Your task to perform on an android device: Open the phone app and click the voicemail tab. Image 0: 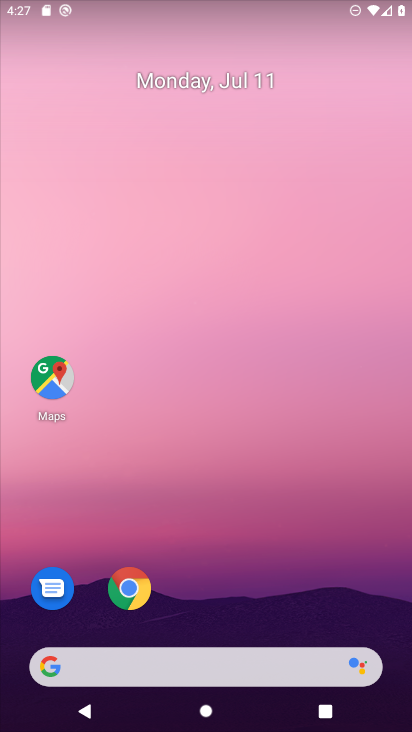
Step 0: press home button
Your task to perform on an android device: Open the phone app and click the voicemail tab. Image 1: 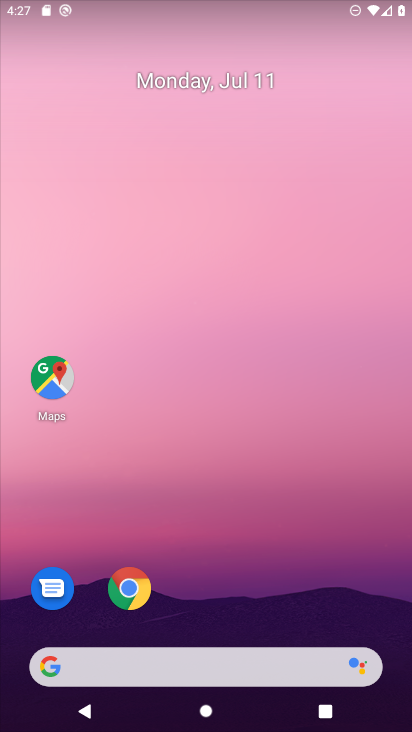
Step 1: drag from (203, 608) to (169, 202)
Your task to perform on an android device: Open the phone app and click the voicemail tab. Image 2: 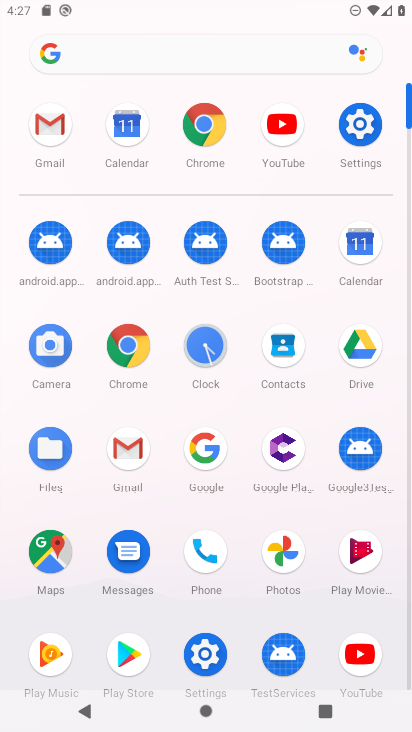
Step 2: click (207, 560)
Your task to perform on an android device: Open the phone app and click the voicemail tab. Image 3: 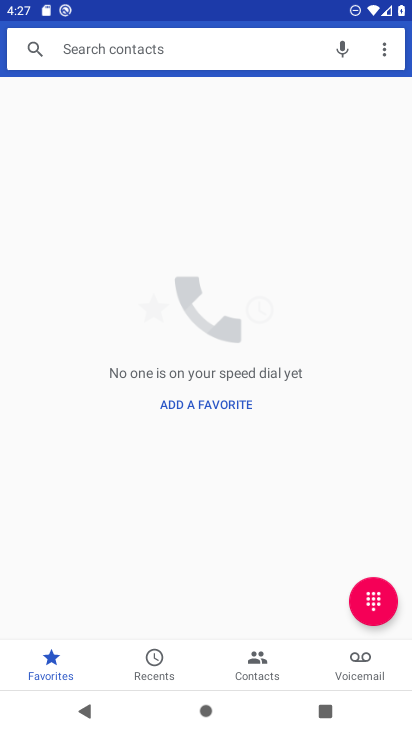
Step 3: click (364, 663)
Your task to perform on an android device: Open the phone app and click the voicemail tab. Image 4: 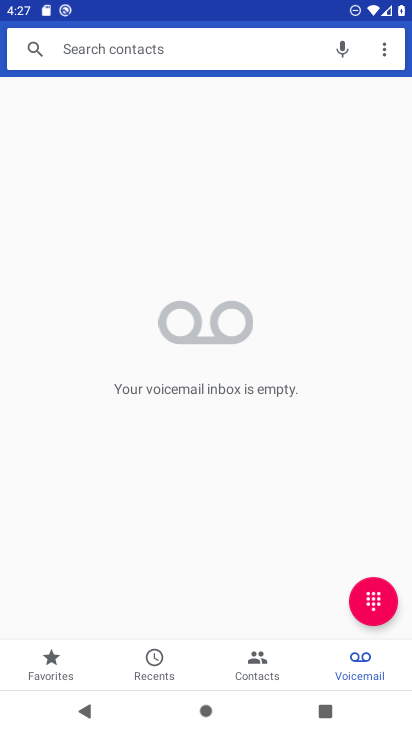
Step 4: task complete